Your task to perform on an android device: Go to accessibility settings Image 0: 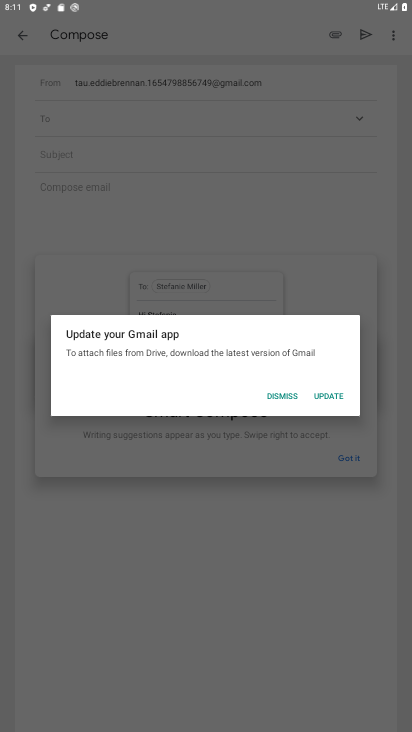
Step 0: press home button
Your task to perform on an android device: Go to accessibility settings Image 1: 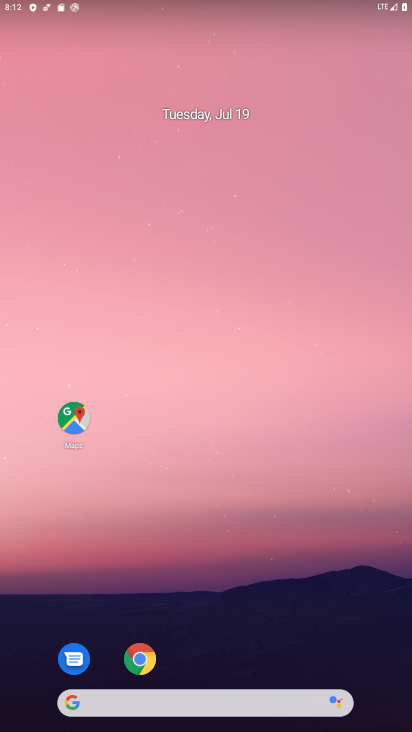
Step 1: drag from (296, 628) to (292, 566)
Your task to perform on an android device: Go to accessibility settings Image 2: 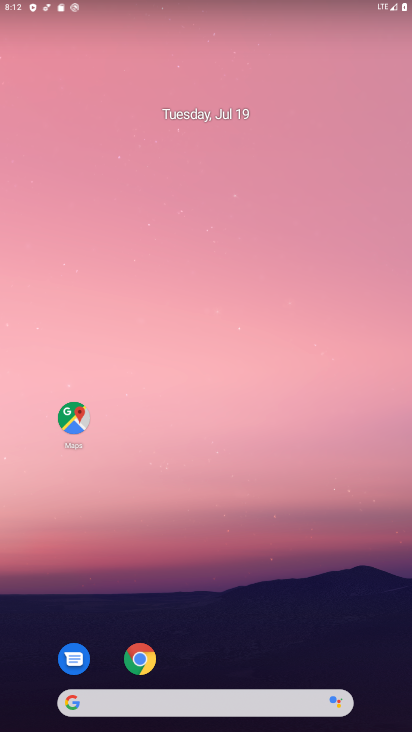
Step 2: drag from (246, 662) to (352, 185)
Your task to perform on an android device: Go to accessibility settings Image 3: 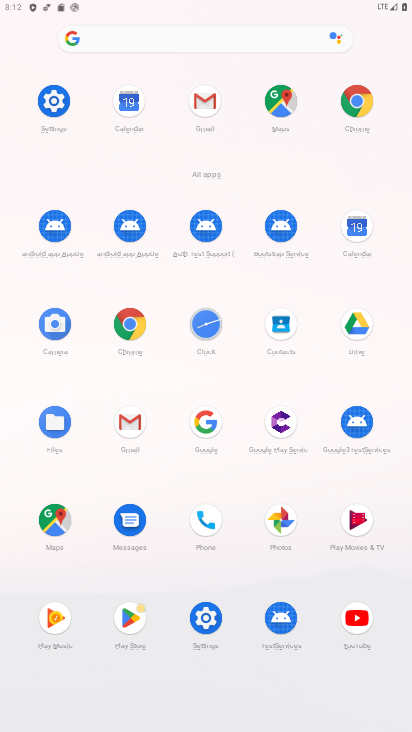
Step 3: click (223, 616)
Your task to perform on an android device: Go to accessibility settings Image 4: 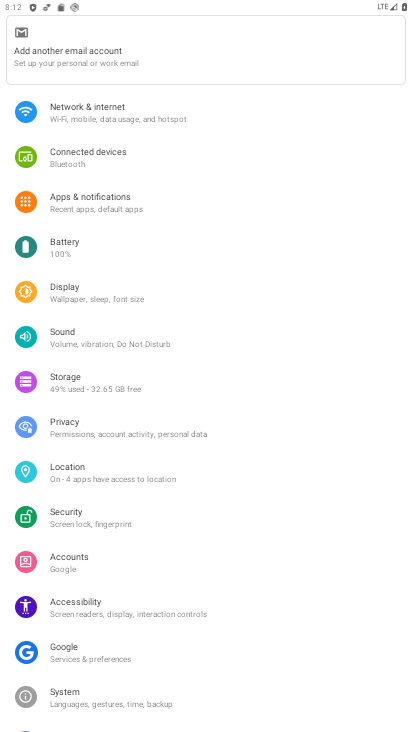
Step 4: click (92, 607)
Your task to perform on an android device: Go to accessibility settings Image 5: 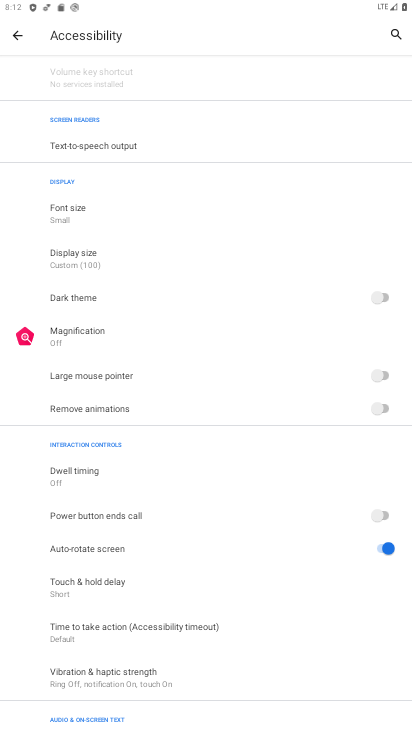
Step 5: task complete